Your task to perform on an android device: Open the stopwatch Image 0: 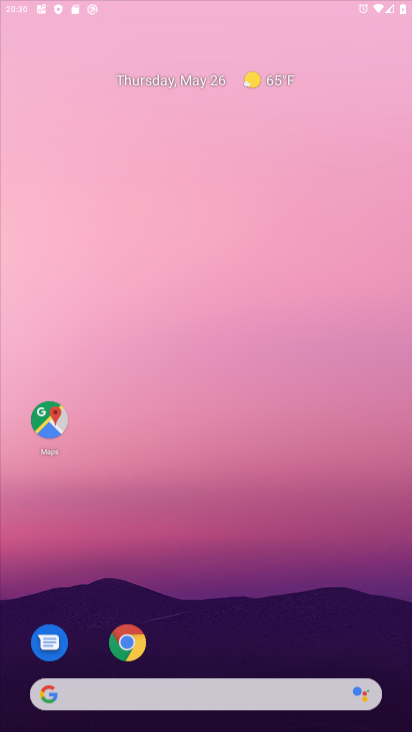
Step 0: click (256, 100)
Your task to perform on an android device: Open the stopwatch Image 1: 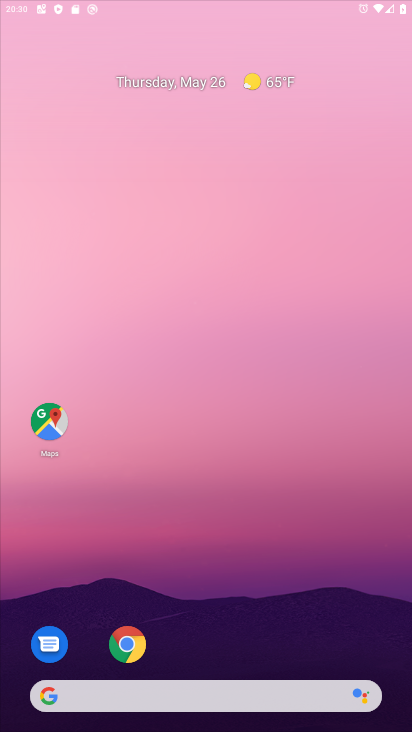
Step 1: drag from (204, 638) to (214, 240)
Your task to perform on an android device: Open the stopwatch Image 2: 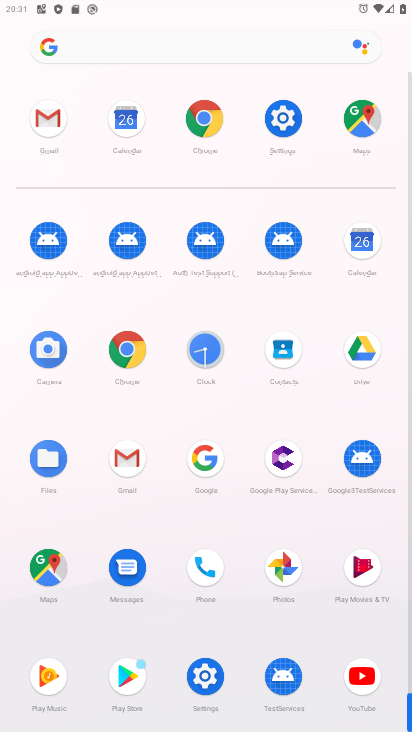
Step 2: click (195, 339)
Your task to perform on an android device: Open the stopwatch Image 3: 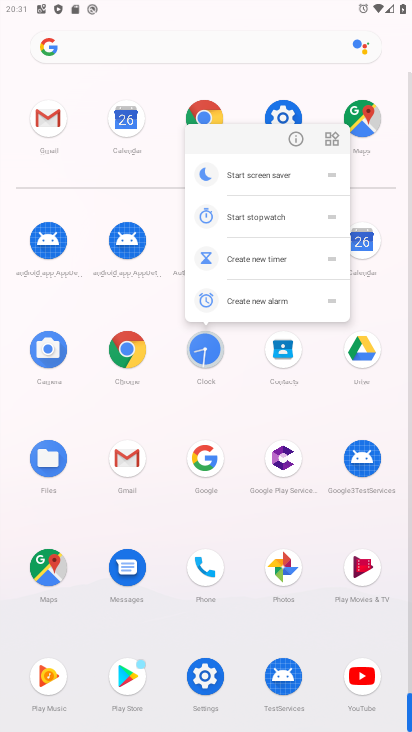
Step 3: click (304, 139)
Your task to perform on an android device: Open the stopwatch Image 4: 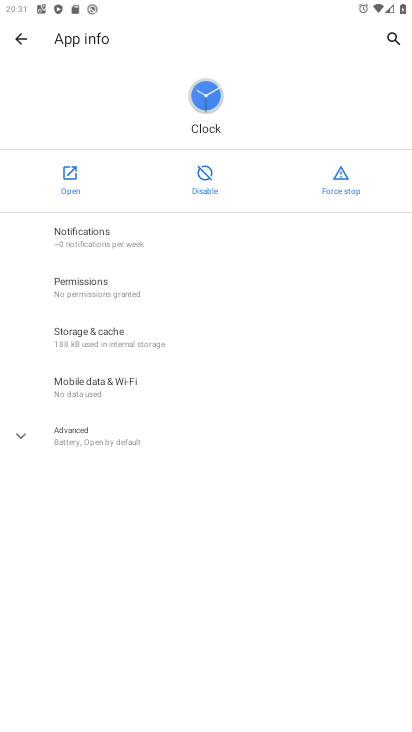
Step 4: click (72, 172)
Your task to perform on an android device: Open the stopwatch Image 5: 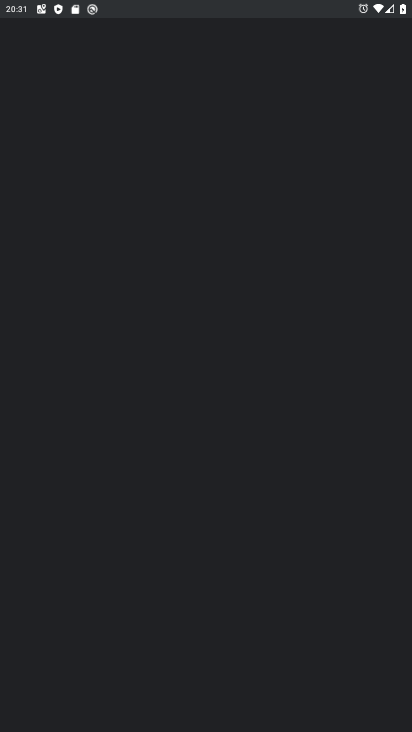
Step 5: drag from (241, 621) to (237, 147)
Your task to perform on an android device: Open the stopwatch Image 6: 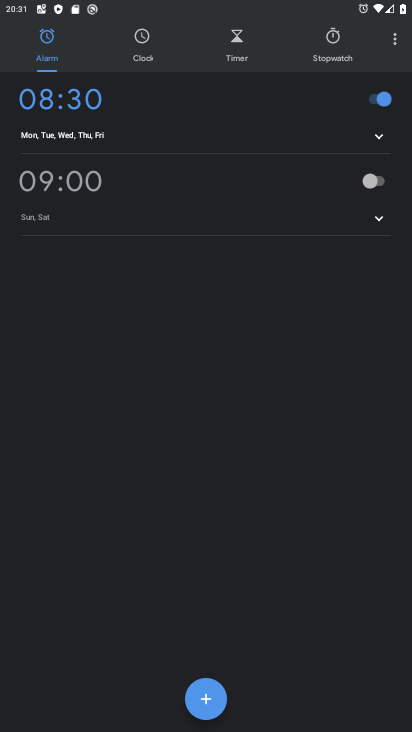
Step 6: click (330, 35)
Your task to perform on an android device: Open the stopwatch Image 7: 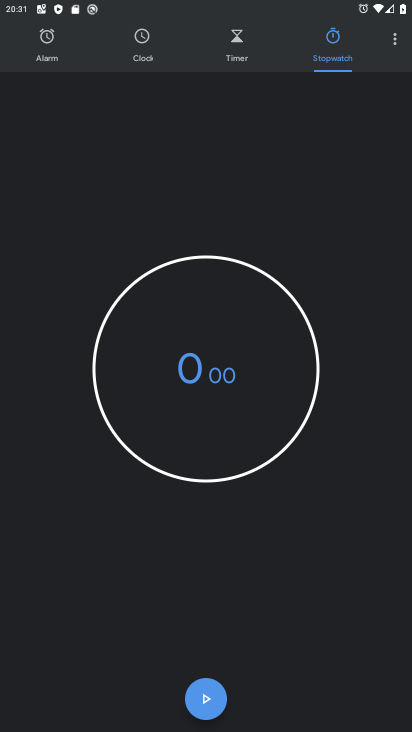
Step 7: click (211, 698)
Your task to perform on an android device: Open the stopwatch Image 8: 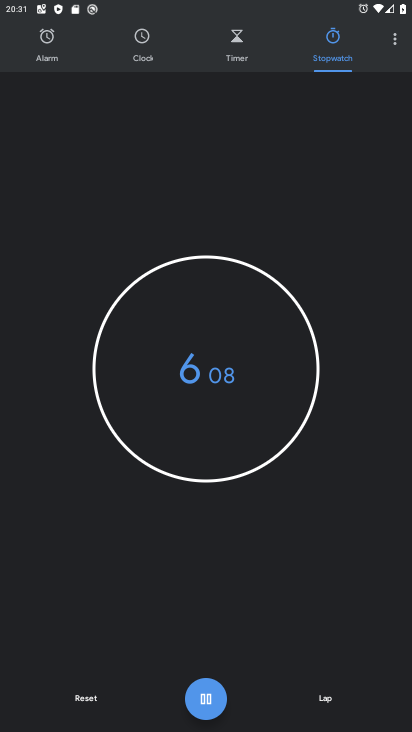
Step 8: task complete